Your task to perform on an android device: Do I have any events today? Image 0: 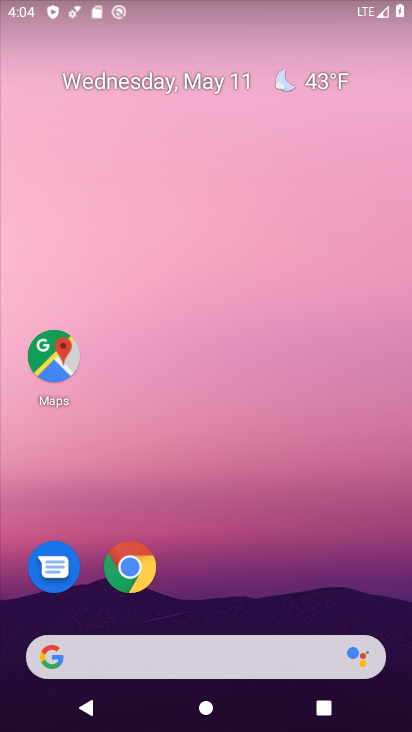
Step 0: drag from (281, 599) to (275, 35)
Your task to perform on an android device: Do I have any events today? Image 1: 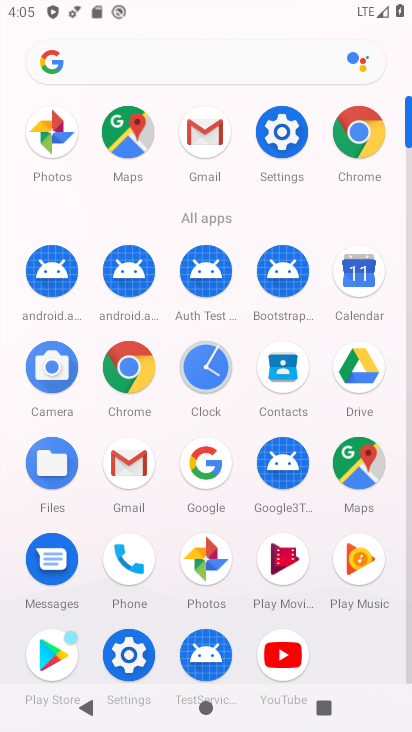
Step 1: click (356, 271)
Your task to perform on an android device: Do I have any events today? Image 2: 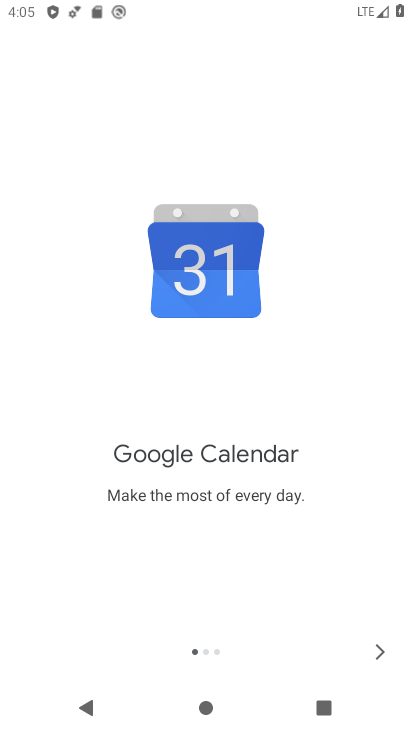
Step 2: click (391, 653)
Your task to perform on an android device: Do I have any events today? Image 3: 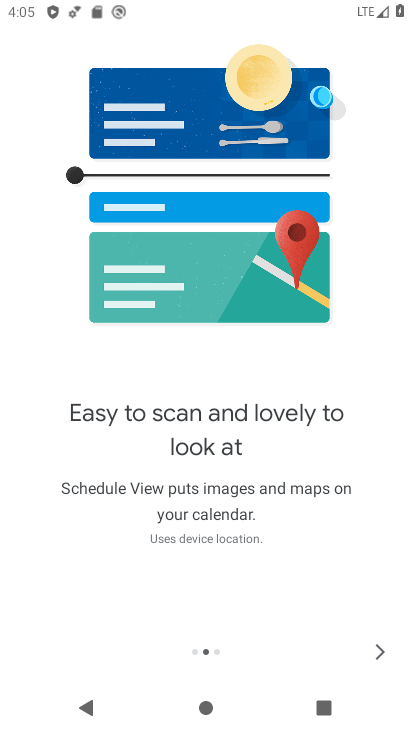
Step 3: click (391, 653)
Your task to perform on an android device: Do I have any events today? Image 4: 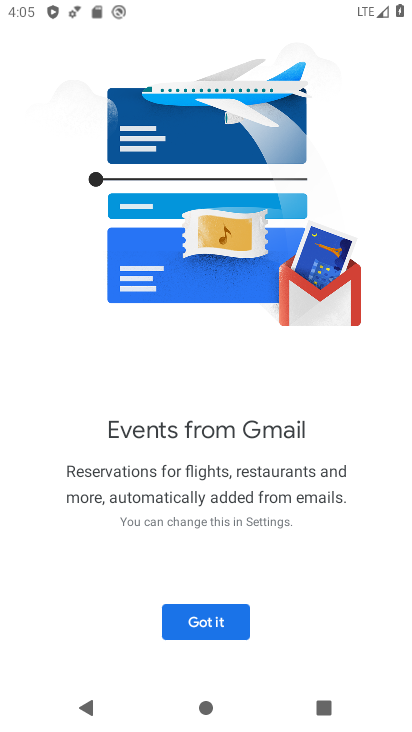
Step 4: click (196, 615)
Your task to perform on an android device: Do I have any events today? Image 5: 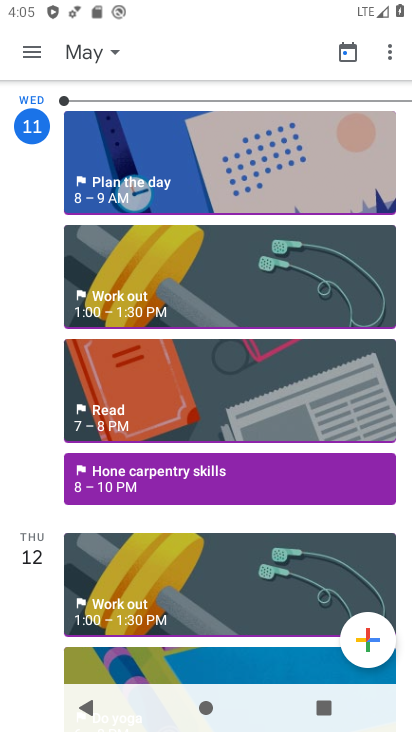
Step 5: task complete